Your task to perform on an android device: turn off priority inbox in the gmail app Image 0: 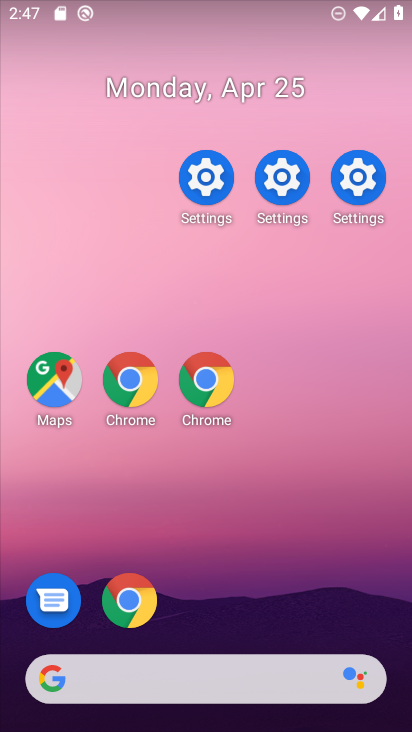
Step 0: click (89, 58)
Your task to perform on an android device: turn off priority inbox in the gmail app Image 1: 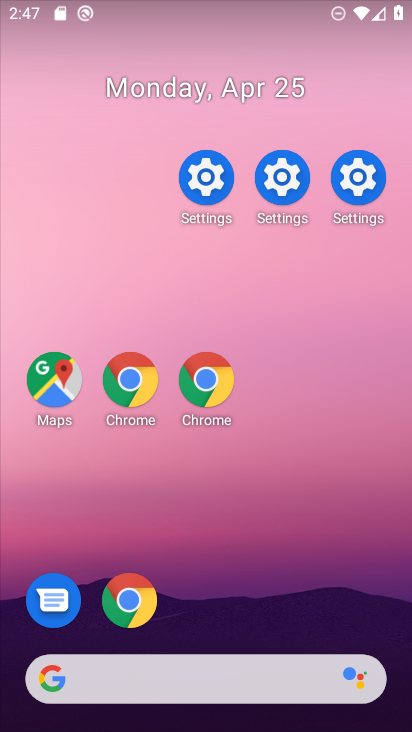
Step 1: drag from (205, 28) to (172, 0)
Your task to perform on an android device: turn off priority inbox in the gmail app Image 2: 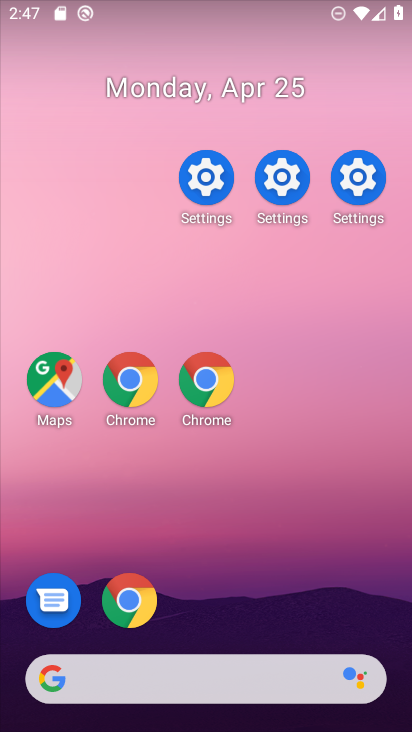
Step 2: click (403, 138)
Your task to perform on an android device: turn off priority inbox in the gmail app Image 3: 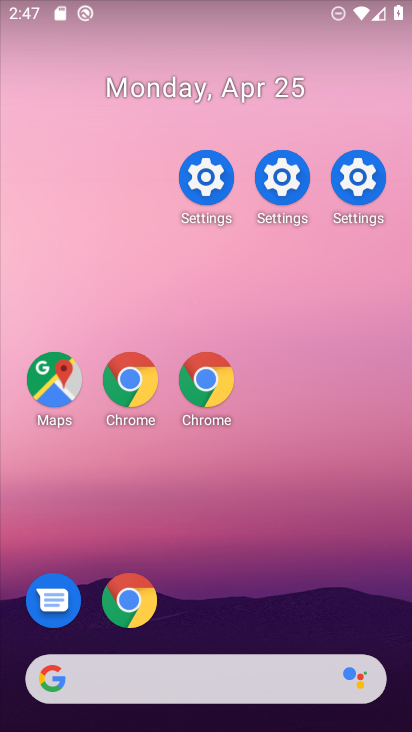
Step 3: drag from (242, 677) to (224, 116)
Your task to perform on an android device: turn off priority inbox in the gmail app Image 4: 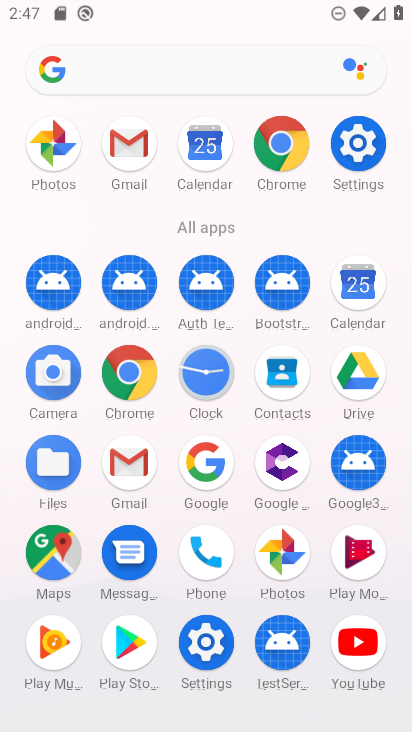
Step 4: click (124, 45)
Your task to perform on an android device: turn off priority inbox in the gmail app Image 5: 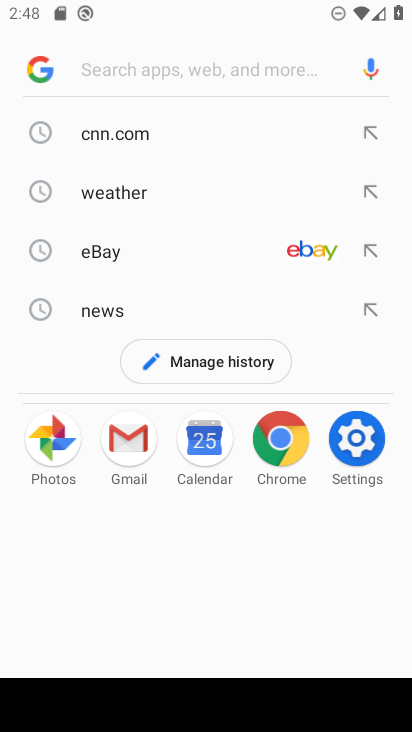
Step 5: press home button
Your task to perform on an android device: turn off priority inbox in the gmail app Image 6: 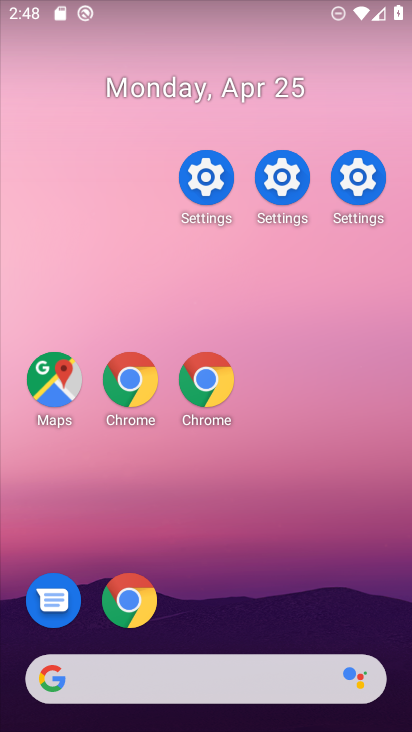
Step 6: drag from (248, 640) to (74, 13)
Your task to perform on an android device: turn off priority inbox in the gmail app Image 7: 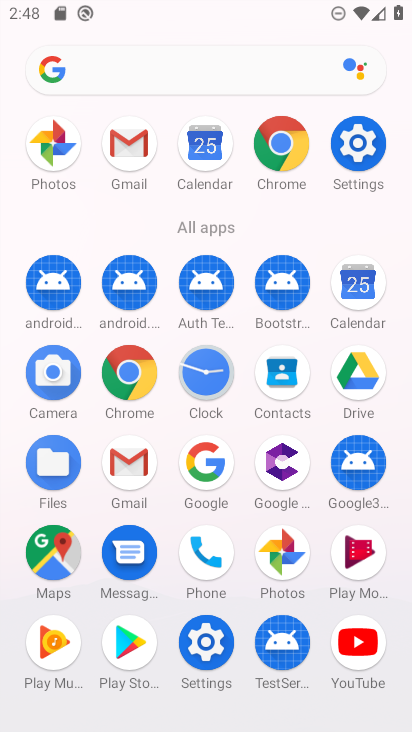
Step 7: drag from (180, 363) to (84, 20)
Your task to perform on an android device: turn off priority inbox in the gmail app Image 8: 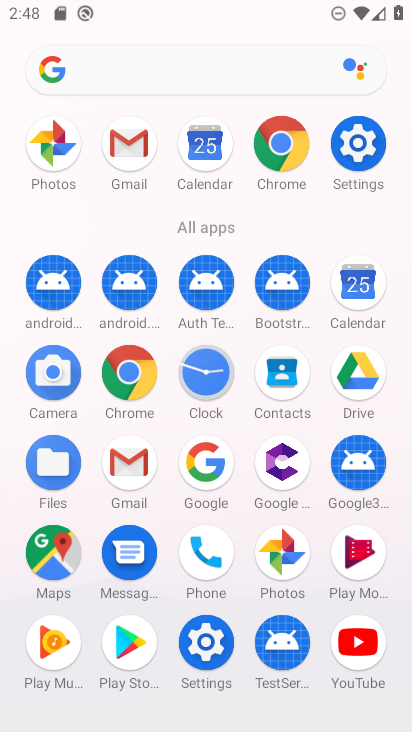
Step 8: click (128, 472)
Your task to perform on an android device: turn off priority inbox in the gmail app Image 9: 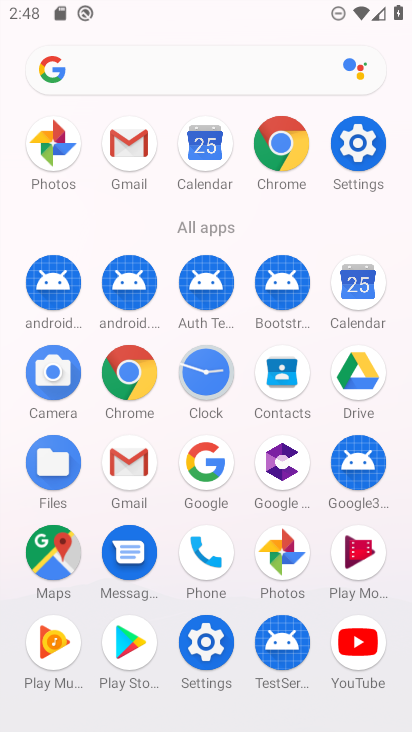
Step 9: click (127, 472)
Your task to perform on an android device: turn off priority inbox in the gmail app Image 10: 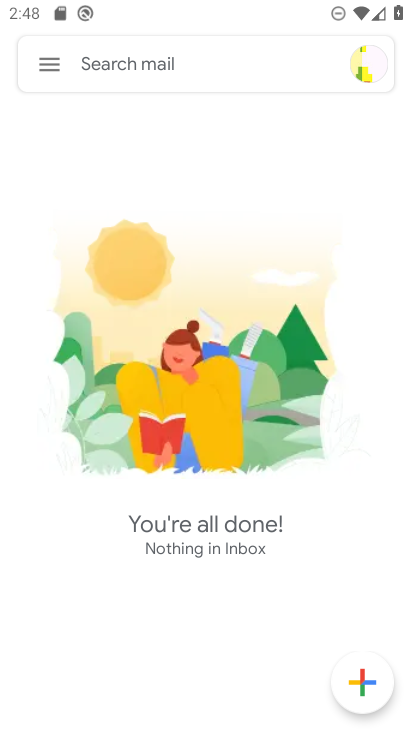
Step 10: click (53, 72)
Your task to perform on an android device: turn off priority inbox in the gmail app Image 11: 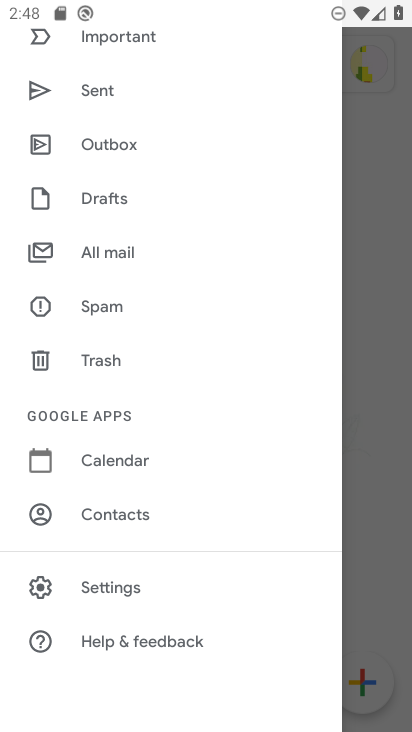
Step 11: click (116, 580)
Your task to perform on an android device: turn off priority inbox in the gmail app Image 12: 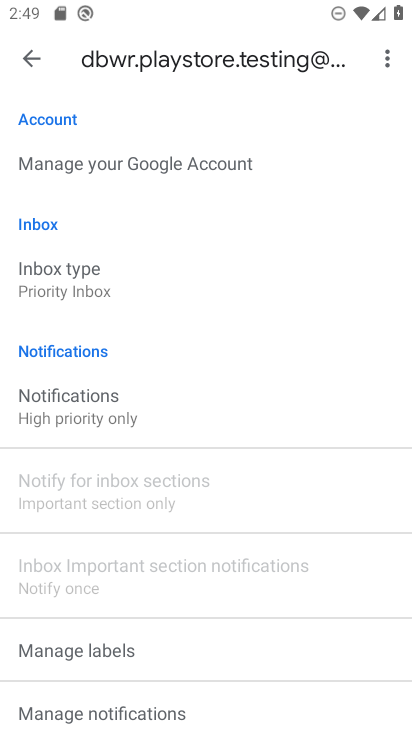
Step 12: click (54, 281)
Your task to perform on an android device: turn off priority inbox in the gmail app Image 13: 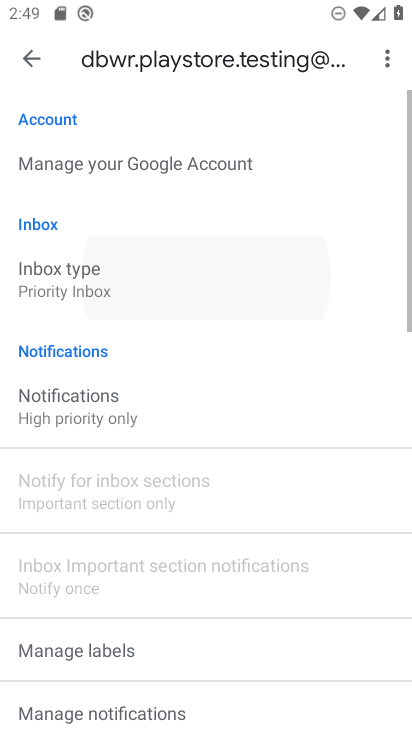
Step 13: click (54, 281)
Your task to perform on an android device: turn off priority inbox in the gmail app Image 14: 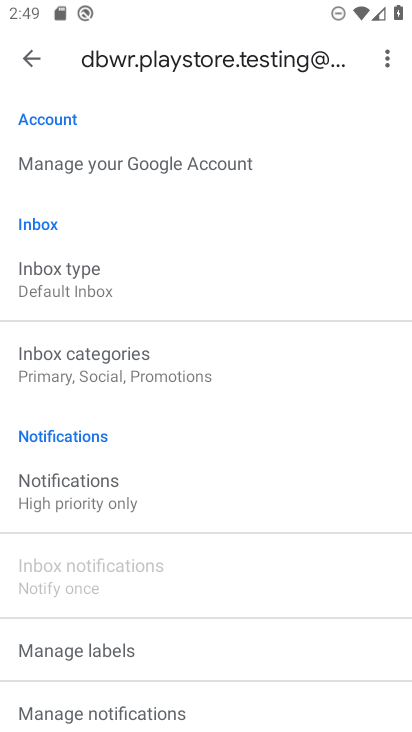
Step 14: task complete